Your task to perform on an android device: Open the stopwatch Image 0: 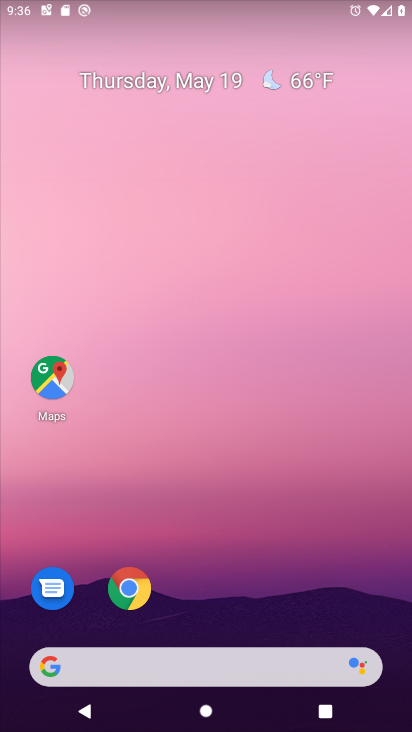
Step 0: drag from (362, 601) to (353, 201)
Your task to perform on an android device: Open the stopwatch Image 1: 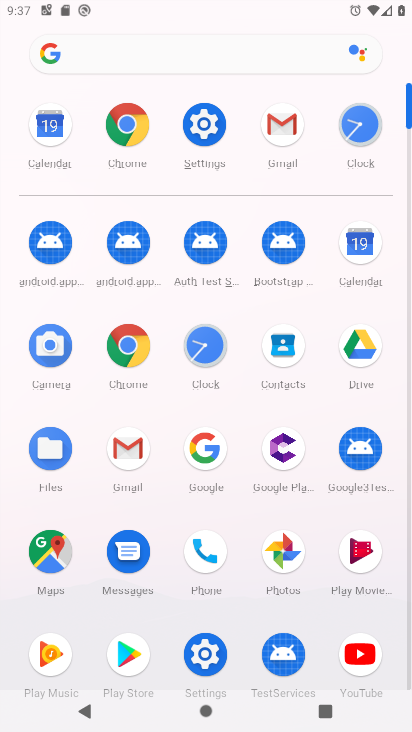
Step 1: click (209, 342)
Your task to perform on an android device: Open the stopwatch Image 2: 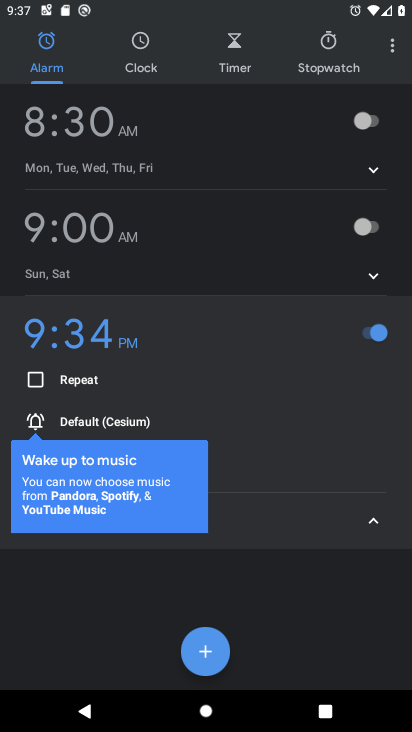
Step 2: click (334, 60)
Your task to perform on an android device: Open the stopwatch Image 3: 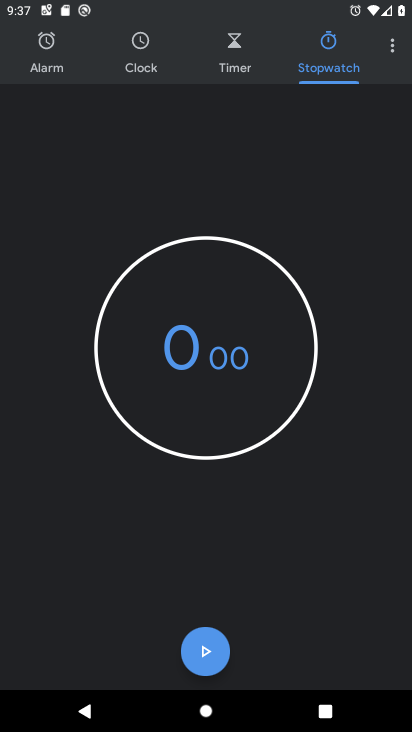
Step 3: task complete